Your task to perform on an android device: open app "Move to iOS" (install if not already installed), go to login, and select forgot password Image 0: 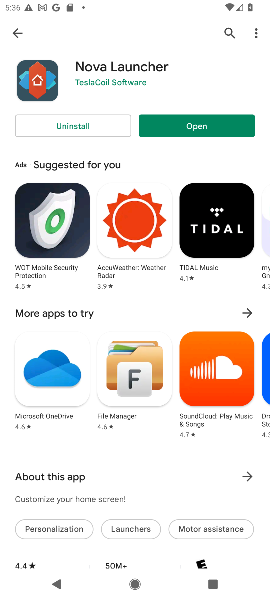
Step 0: click (225, 30)
Your task to perform on an android device: open app "Move to iOS" (install if not already installed), go to login, and select forgot password Image 1: 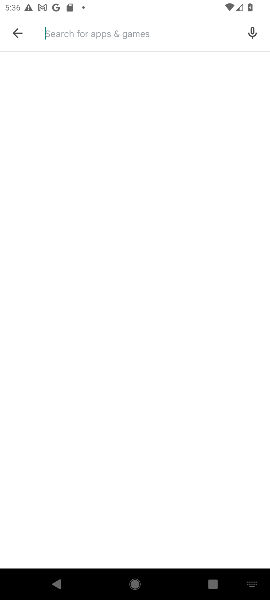
Step 1: type "Move to iOS"
Your task to perform on an android device: open app "Move to iOS" (install if not already installed), go to login, and select forgot password Image 2: 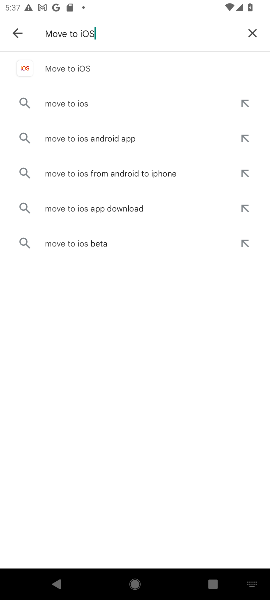
Step 2: click (71, 73)
Your task to perform on an android device: open app "Move to iOS" (install if not already installed), go to login, and select forgot password Image 3: 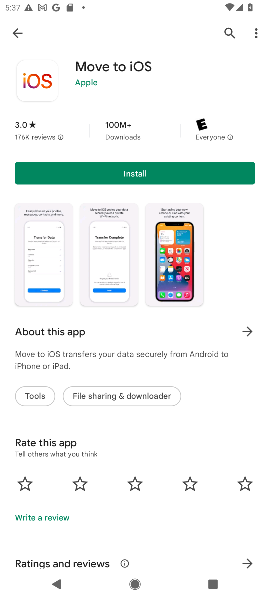
Step 3: click (120, 174)
Your task to perform on an android device: open app "Move to iOS" (install if not already installed), go to login, and select forgot password Image 4: 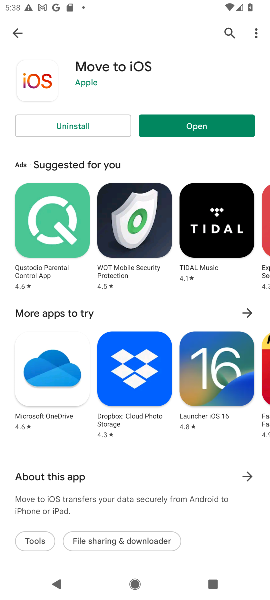
Step 4: click (213, 122)
Your task to perform on an android device: open app "Move to iOS" (install if not already installed), go to login, and select forgot password Image 5: 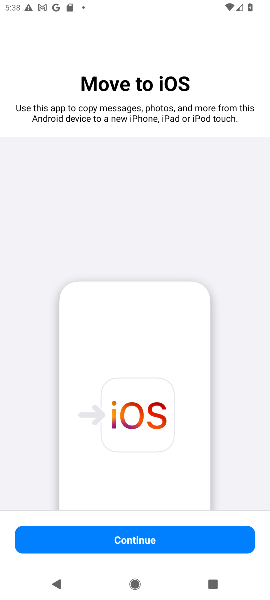
Step 5: task complete